Your task to perform on an android device: turn on bluetooth scan Image 0: 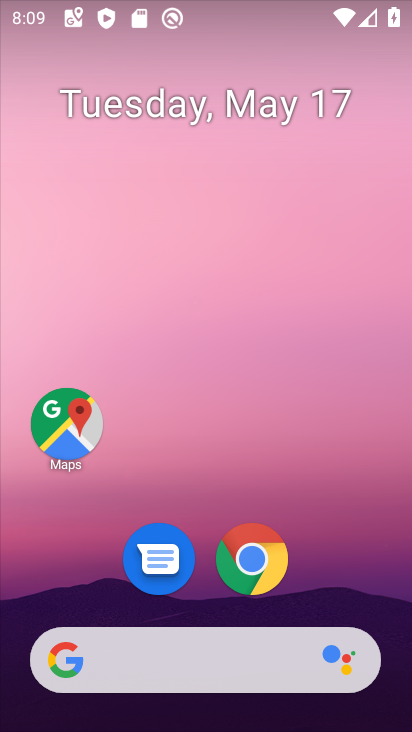
Step 0: drag from (151, 709) to (87, 6)
Your task to perform on an android device: turn on bluetooth scan Image 1: 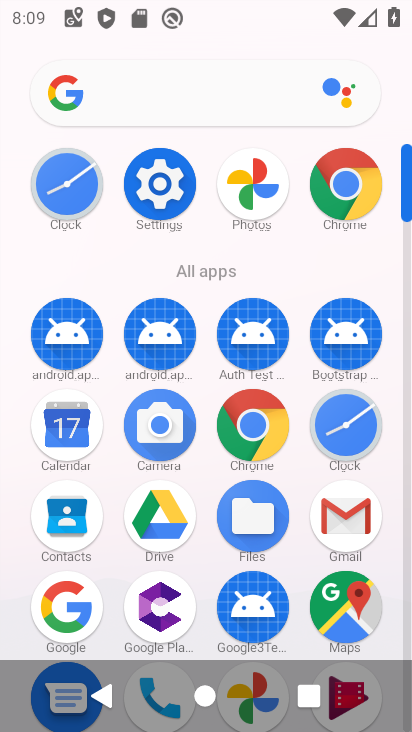
Step 1: click (134, 173)
Your task to perform on an android device: turn on bluetooth scan Image 2: 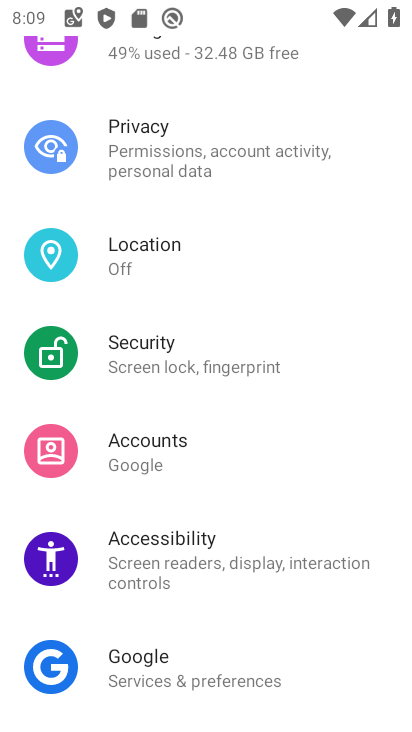
Step 2: click (181, 251)
Your task to perform on an android device: turn on bluetooth scan Image 3: 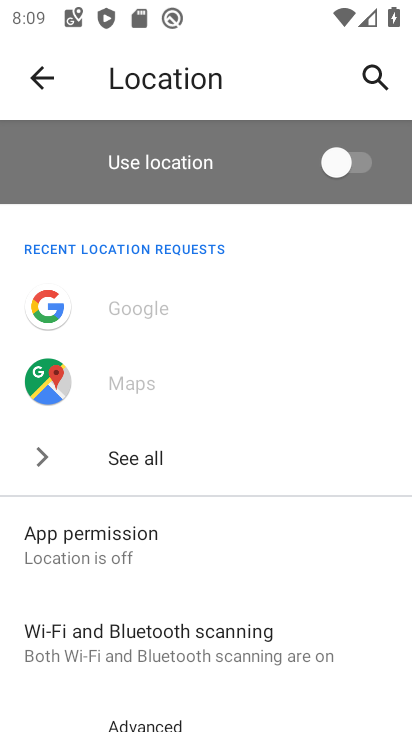
Step 3: click (147, 650)
Your task to perform on an android device: turn on bluetooth scan Image 4: 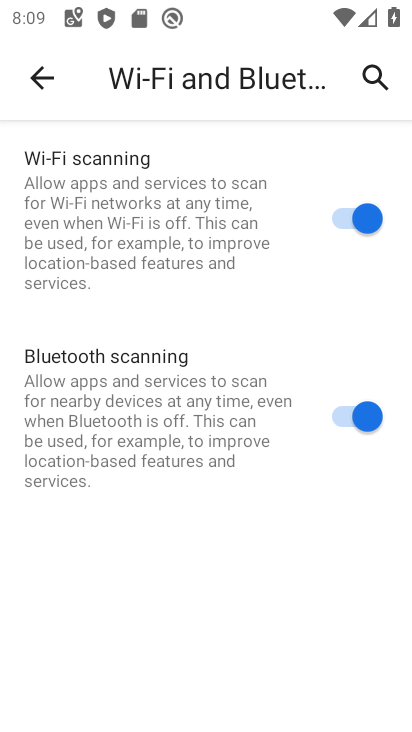
Step 4: task complete